Your task to perform on an android device: Search for Mexican restaurants on Maps Image 0: 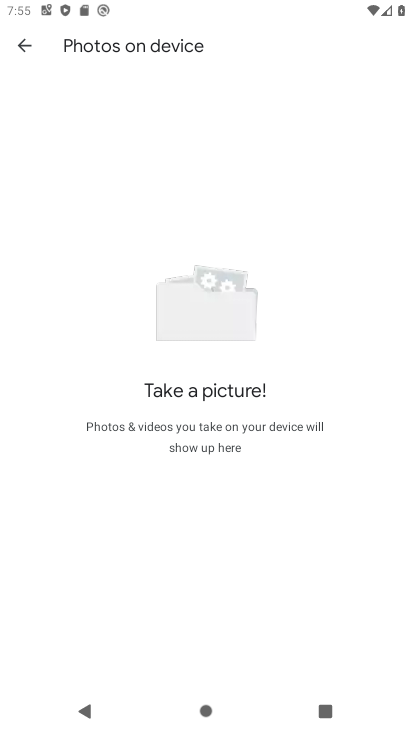
Step 0: press home button
Your task to perform on an android device: Search for Mexican restaurants on Maps Image 1: 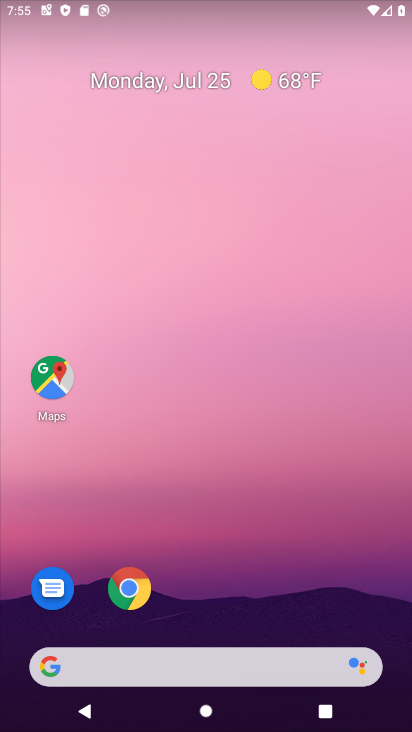
Step 1: drag from (352, 589) to (337, 101)
Your task to perform on an android device: Search for Mexican restaurants on Maps Image 2: 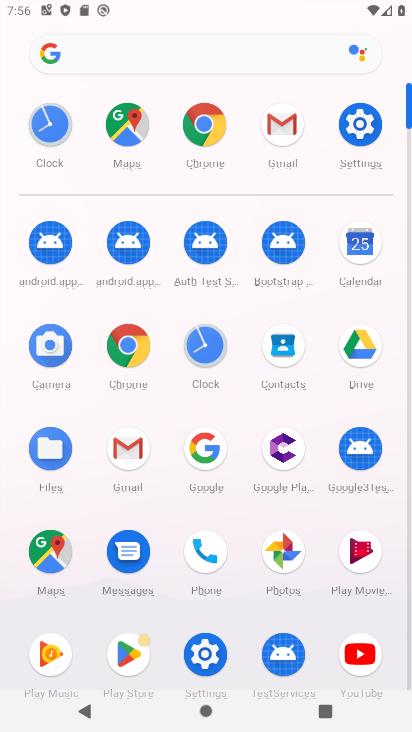
Step 2: click (42, 547)
Your task to perform on an android device: Search for Mexican restaurants on Maps Image 3: 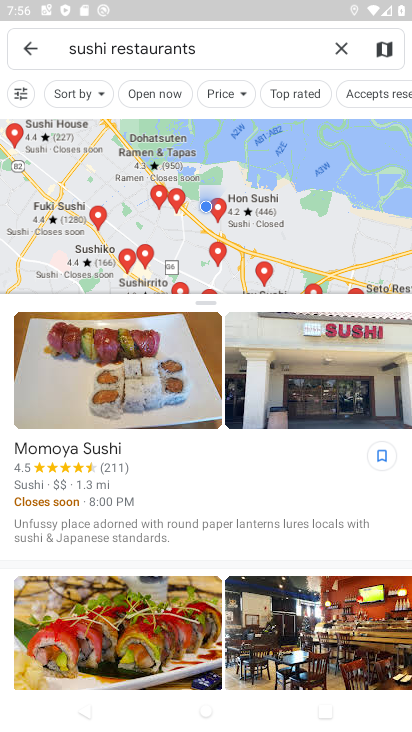
Step 3: press back button
Your task to perform on an android device: Search for Mexican restaurants on Maps Image 4: 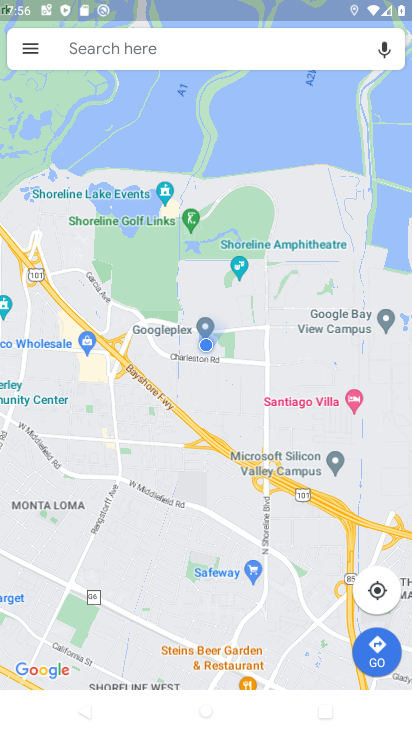
Step 4: click (158, 47)
Your task to perform on an android device: Search for Mexican restaurants on Maps Image 5: 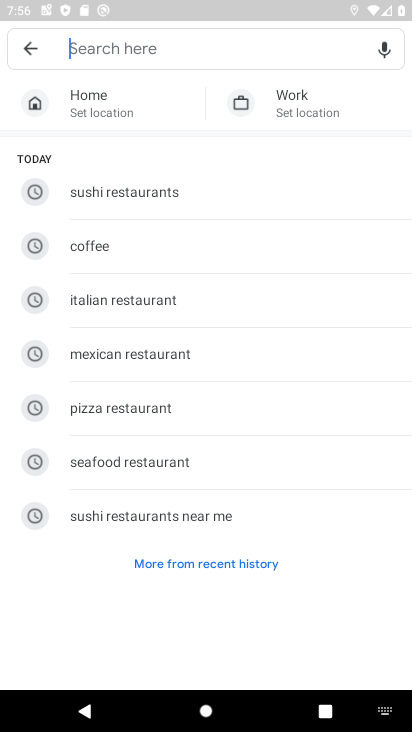
Step 5: type "mexcian restaurants"
Your task to perform on an android device: Search for Mexican restaurants on Maps Image 6: 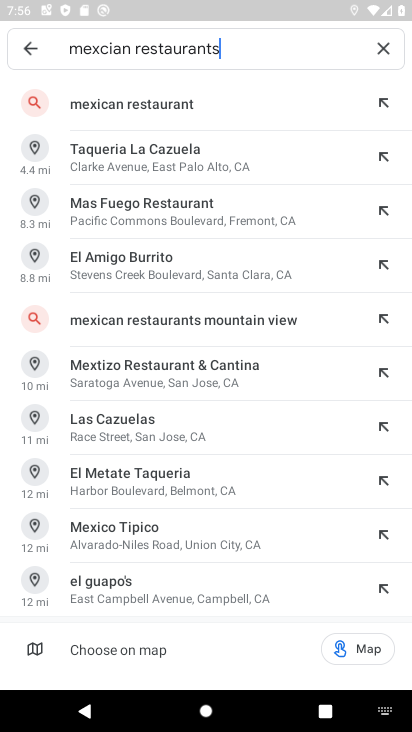
Step 6: click (206, 102)
Your task to perform on an android device: Search for Mexican restaurants on Maps Image 7: 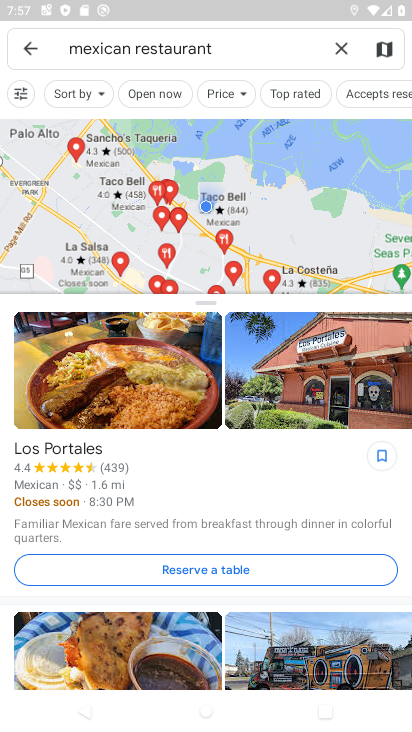
Step 7: task complete